Your task to perform on an android device: When is my next meeting? Image 0: 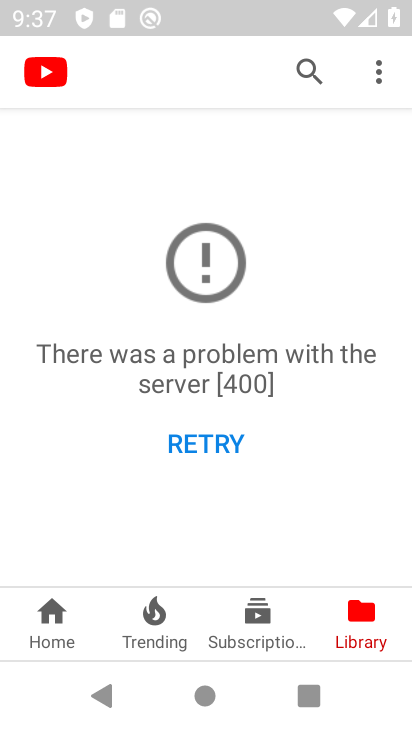
Step 0: press home button
Your task to perform on an android device: When is my next meeting? Image 1: 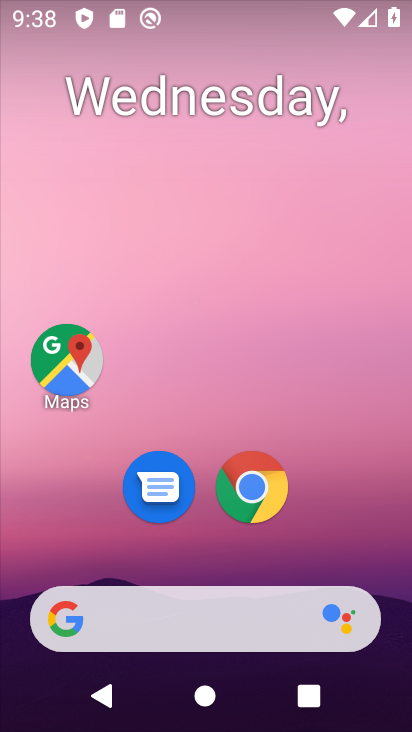
Step 1: drag from (273, 566) to (172, 155)
Your task to perform on an android device: When is my next meeting? Image 2: 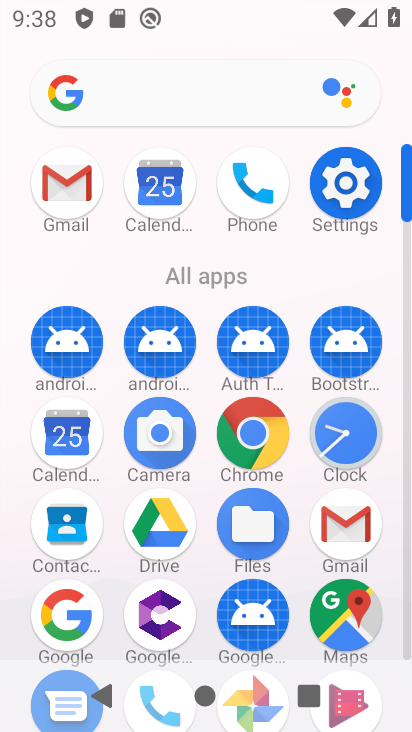
Step 2: click (60, 452)
Your task to perform on an android device: When is my next meeting? Image 3: 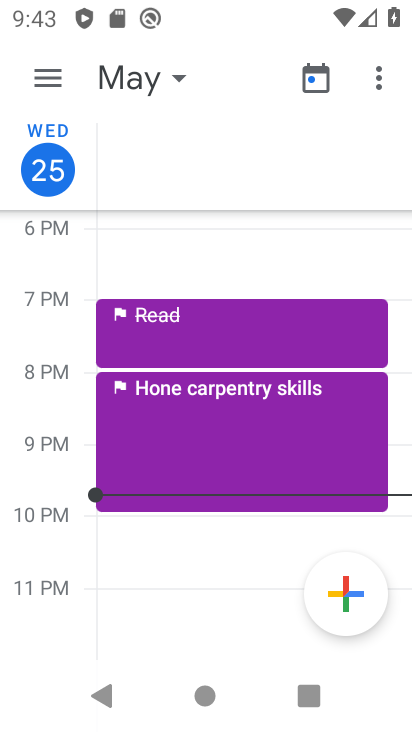
Step 3: task complete